Your task to perform on an android device: make emails show in primary in the gmail app Image 0: 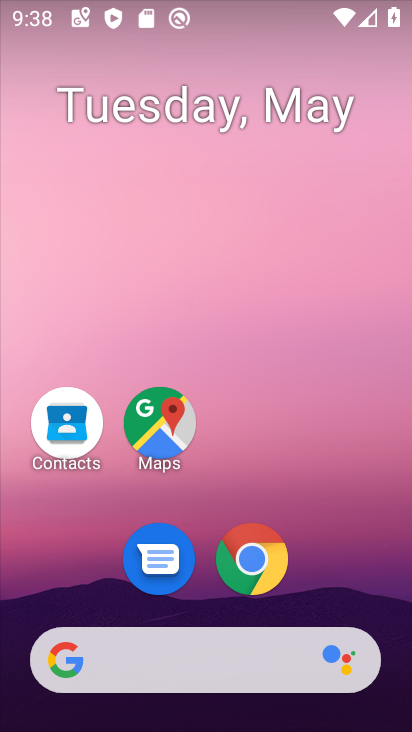
Step 0: drag from (353, 555) to (303, 3)
Your task to perform on an android device: make emails show in primary in the gmail app Image 1: 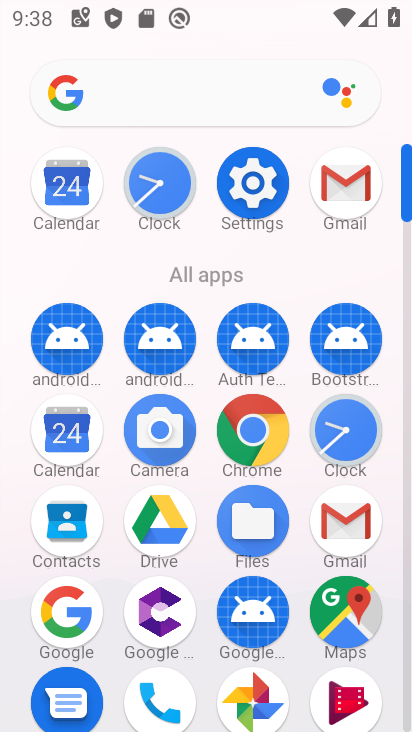
Step 1: click (337, 177)
Your task to perform on an android device: make emails show in primary in the gmail app Image 2: 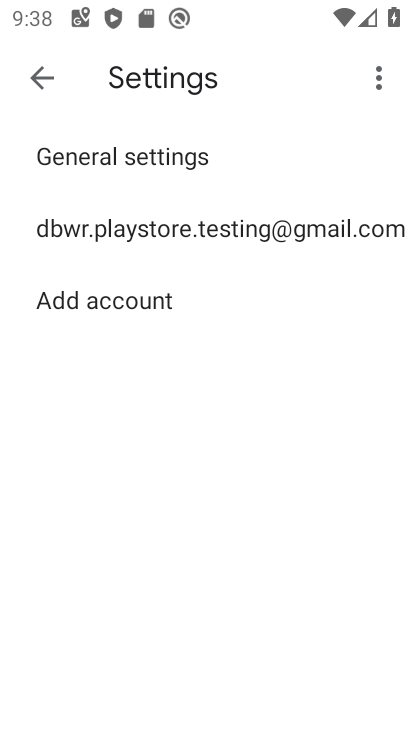
Step 2: click (207, 158)
Your task to perform on an android device: make emails show in primary in the gmail app Image 3: 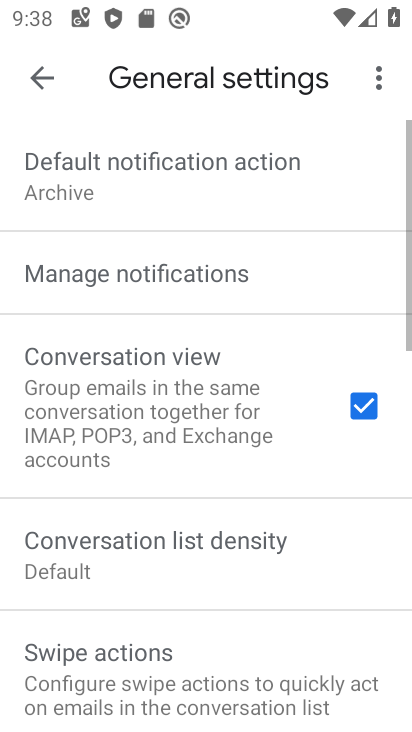
Step 3: click (51, 89)
Your task to perform on an android device: make emails show in primary in the gmail app Image 4: 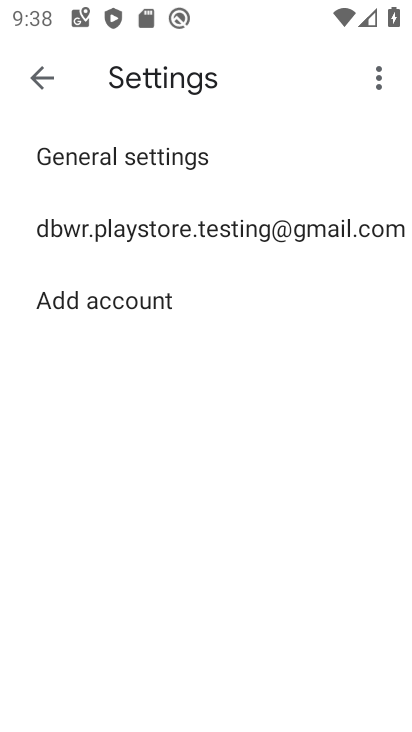
Step 4: click (156, 244)
Your task to perform on an android device: make emails show in primary in the gmail app Image 5: 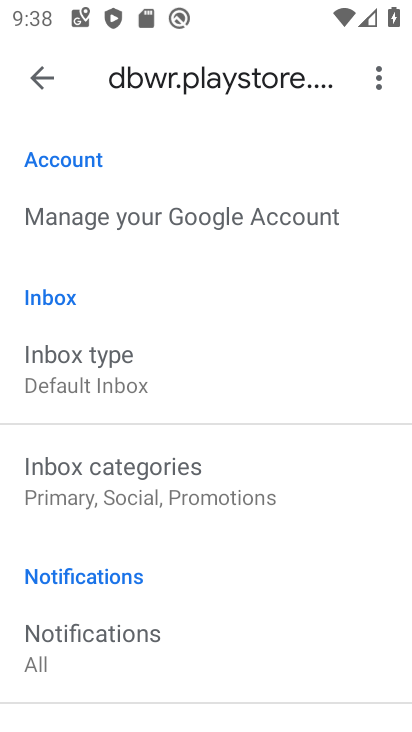
Step 5: click (164, 354)
Your task to perform on an android device: make emails show in primary in the gmail app Image 6: 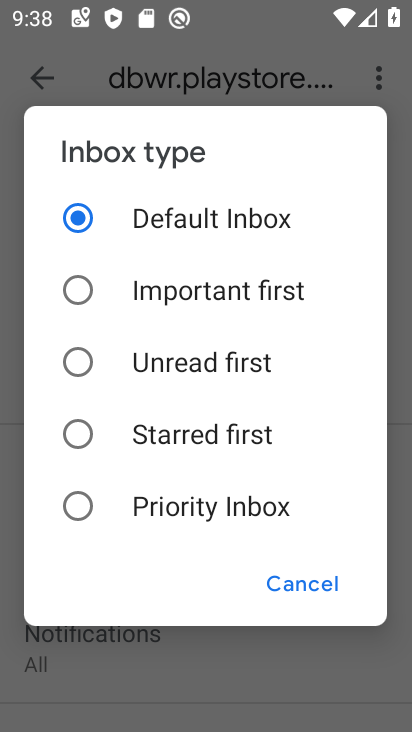
Step 6: click (148, 518)
Your task to perform on an android device: make emails show in primary in the gmail app Image 7: 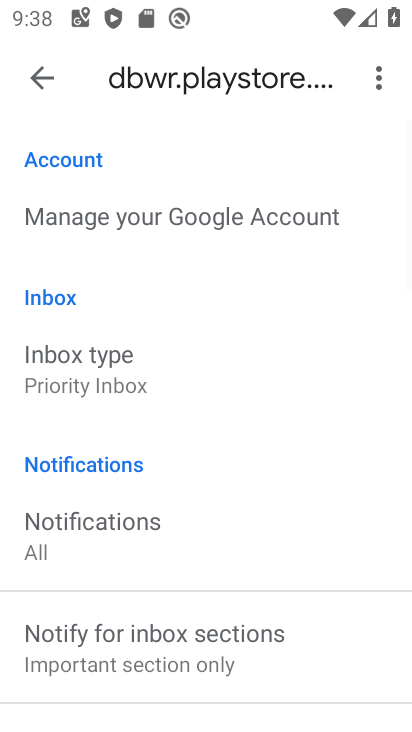
Step 7: click (113, 649)
Your task to perform on an android device: make emails show in primary in the gmail app Image 8: 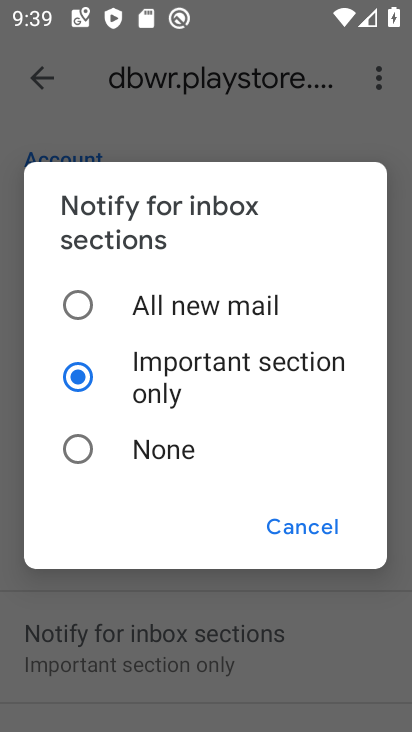
Step 8: click (160, 321)
Your task to perform on an android device: make emails show in primary in the gmail app Image 9: 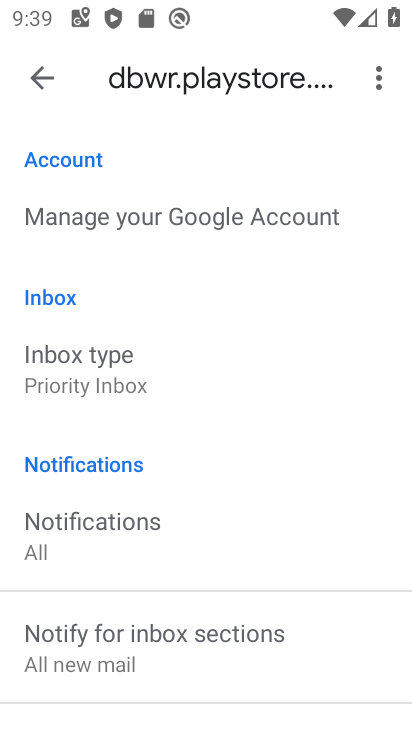
Step 9: drag from (195, 650) to (218, 375)
Your task to perform on an android device: make emails show in primary in the gmail app Image 10: 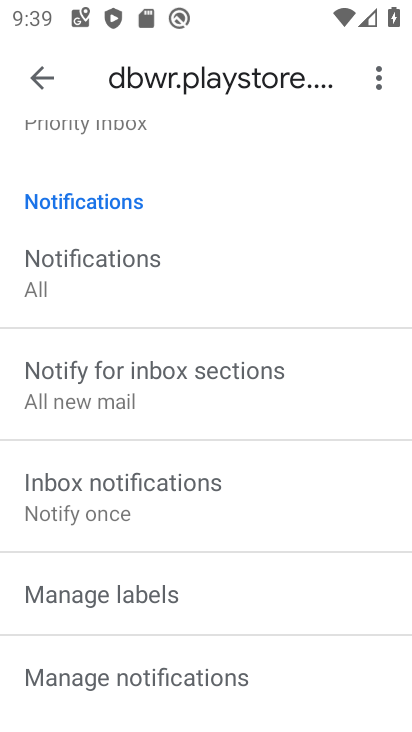
Step 10: click (154, 472)
Your task to perform on an android device: make emails show in primary in the gmail app Image 11: 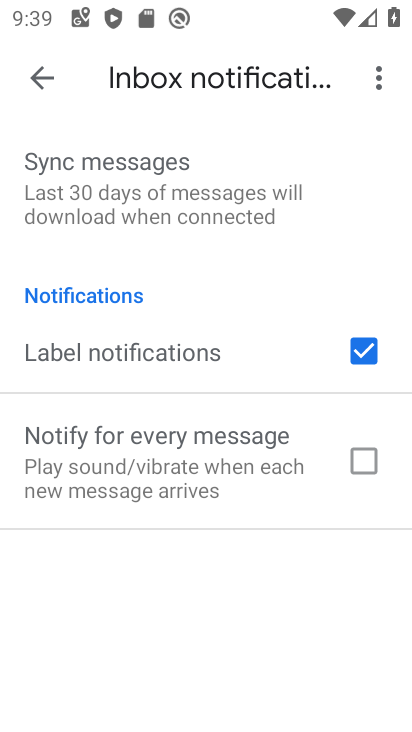
Step 11: task complete